Your task to perform on an android device: move an email to a new category in the gmail app Image 0: 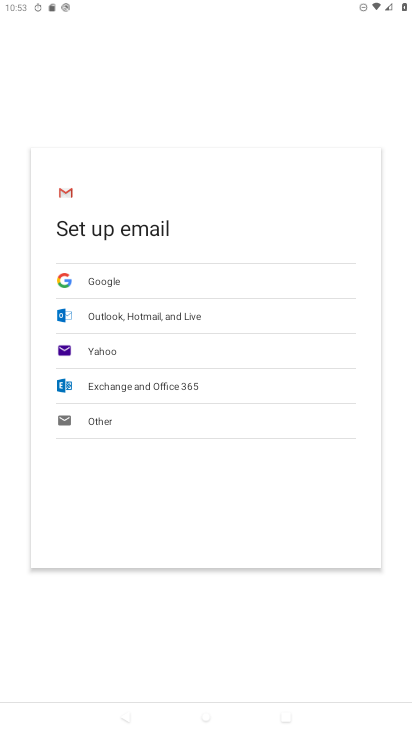
Step 0: press home button
Your task to perform on an android device: move an email to a new category in the gmail app Image 1: 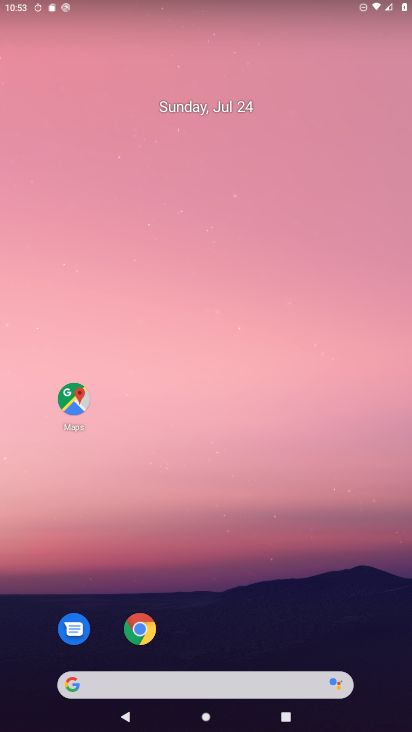
Step 1: drag from (200, 588) to (325, 63)
Your task to perform on an android device: move an email to a new category in the gmail app Image 2: 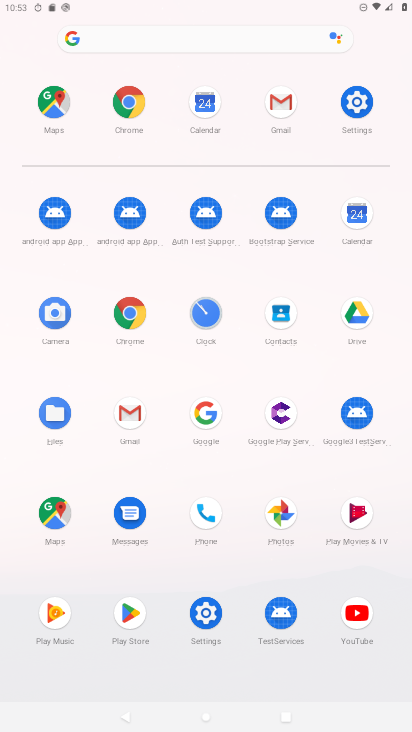
Step 2: click (135, 430)
Your task to perform on an android device: move an email to a new category in the gmail app Image 3: 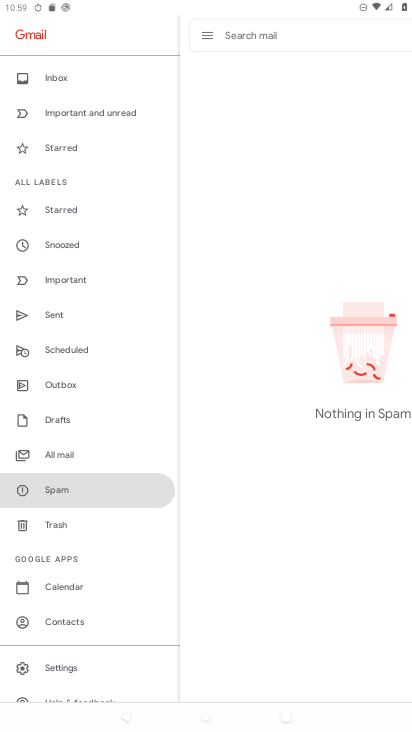
Step 3: click (61, 668)
Your task to perform on an android device: move an email to a new category in the gmail app Image 4: 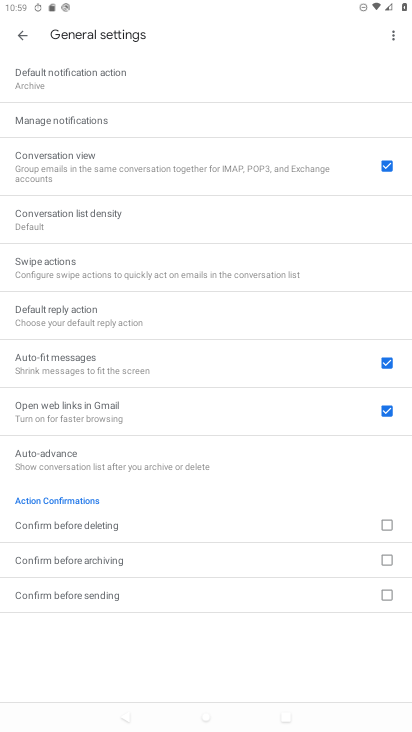
Step 4: task complete